Your task to perform on an android device: show emergency info Image 0: 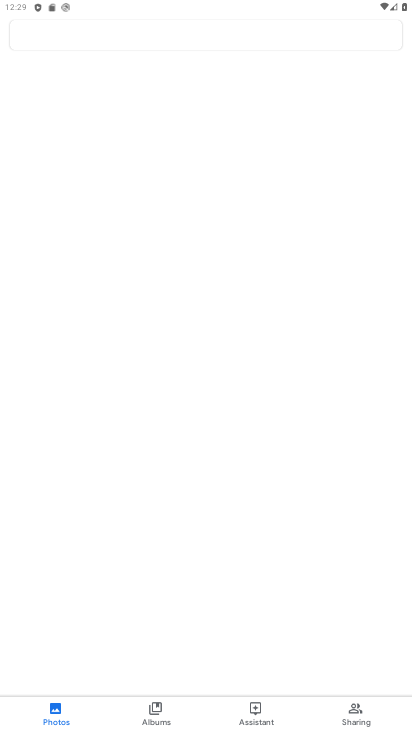
Step 0: press home button
Your task to perform on an android device: show emergency info Image 1: 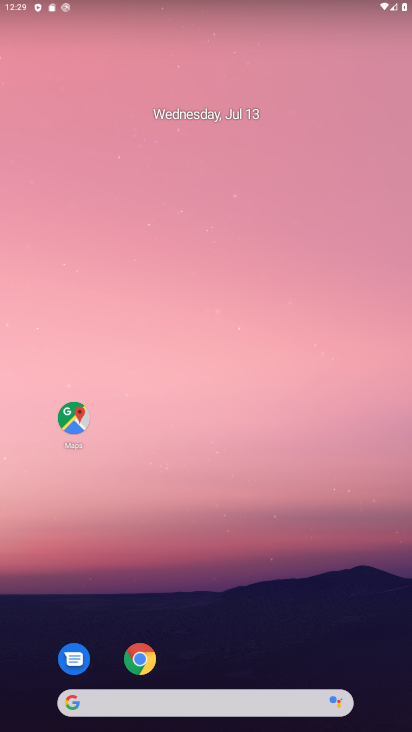
Step 1: drag from (303, 659) to (266, 164)
Your task to perform on an android device: show emergency info Image 2: 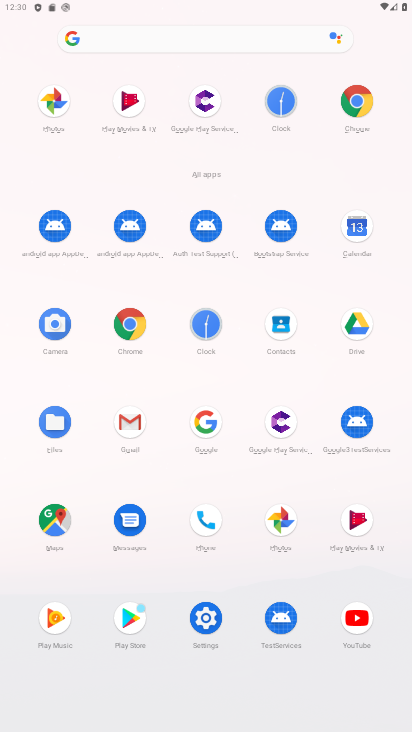
Step 2: click (204, 627)
Your task to perform on an android device: show emergency info Image 3: 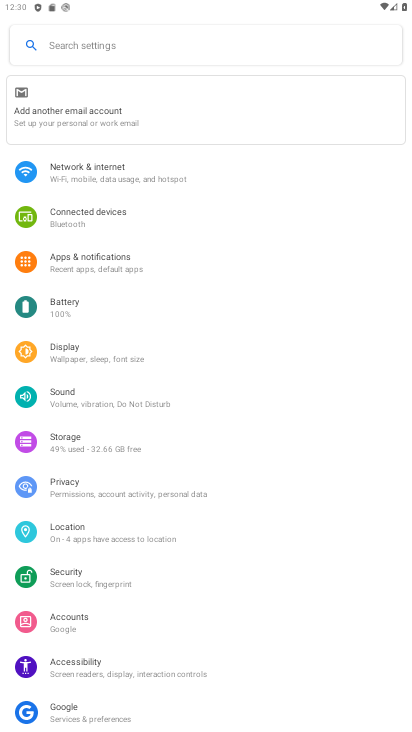
Step 3: drag from (103, 661) to (143, 294)
Your task to perform on an android device: show emergency info Image 4: 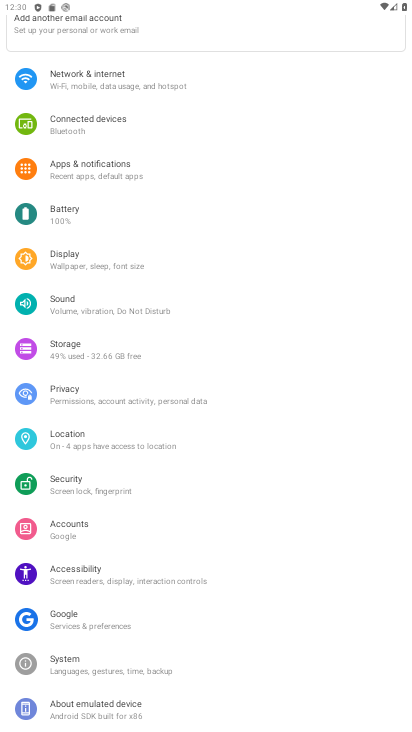
Step 4: click (89, 695)
Your task to perform on an android device: show emergency info Image 5: 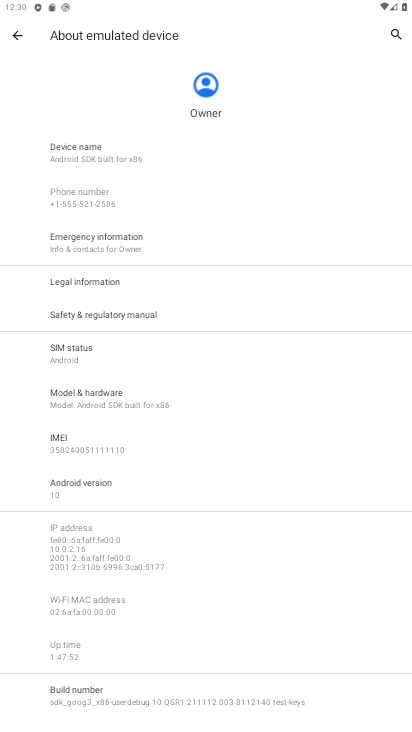
Step 5: click (97, 252)
Your task to perform on an android device: show emergency info Image 6: 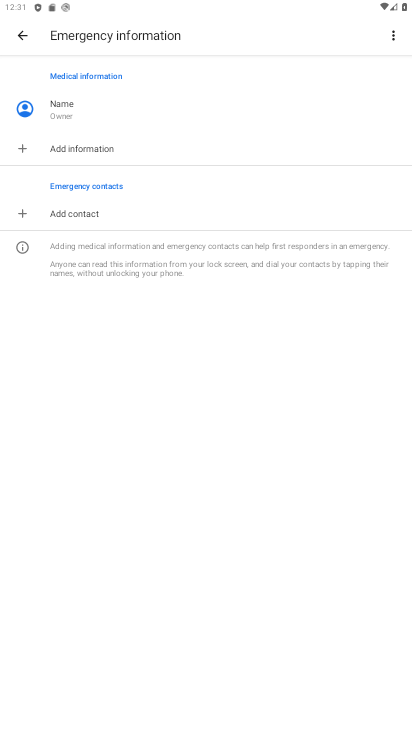
Step 6: task complete